Your task to perform on an android device: toggle airplane mode Image 0: 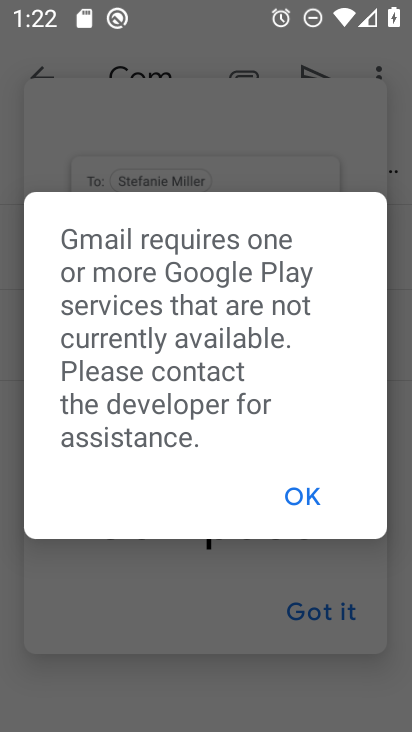
Step 0: press home button
Your task to perform on an android device: toggle airplane mode Image 1: 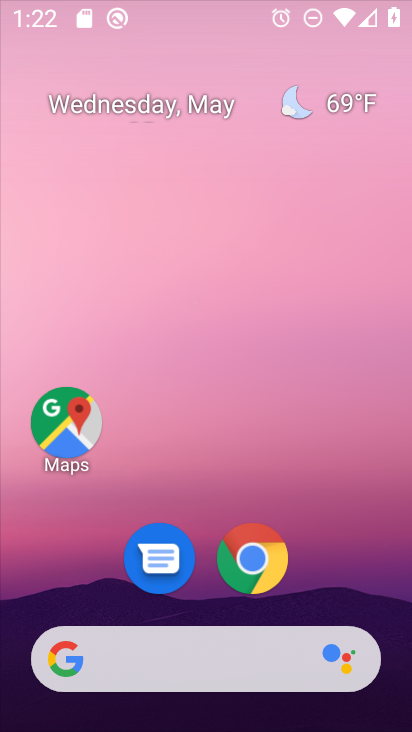
Step 1: drag from (398, 623) to (305, 77)
Your task to perform on an android device: toggle airplane mode Image 2: 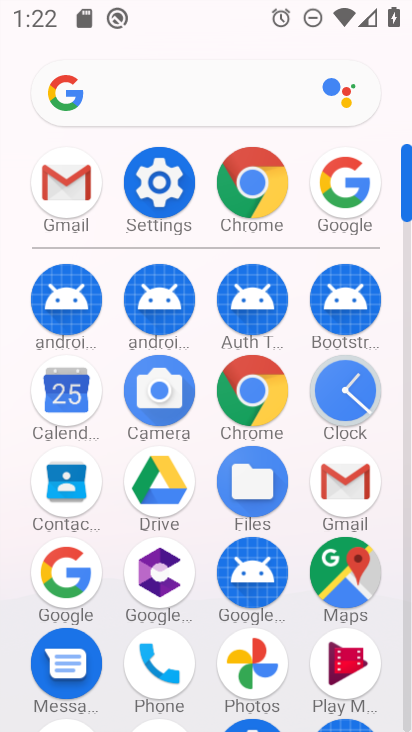
Step 2: drag from (210, 1) to (284, 522)
Your task to perform on an android device: toggle airplane mode Image 3: 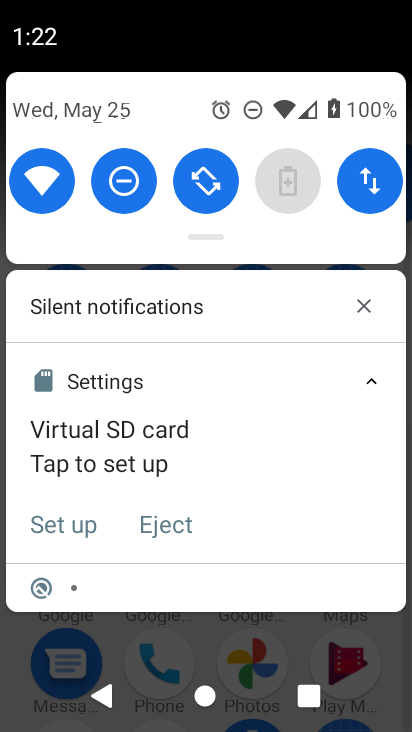
Step 3: drag from (236, 224) to (290, 577)
Your task to perform on an android device: toggle airplane mode Image 4: 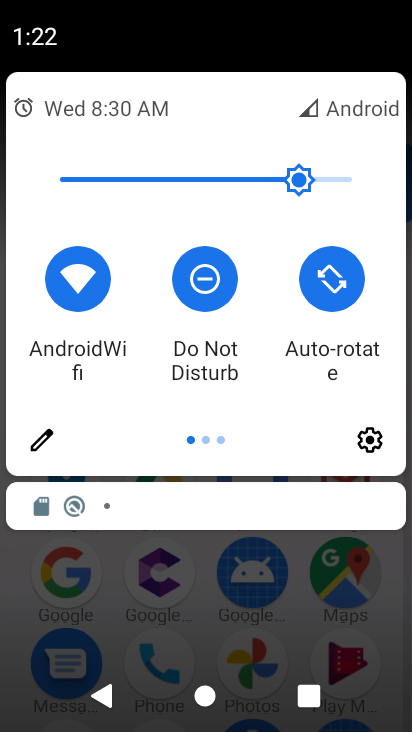
Step 4: drag from (347, 386) to (93, 339)
Your task to perform on an android device: toggle airplane mode Image 5: 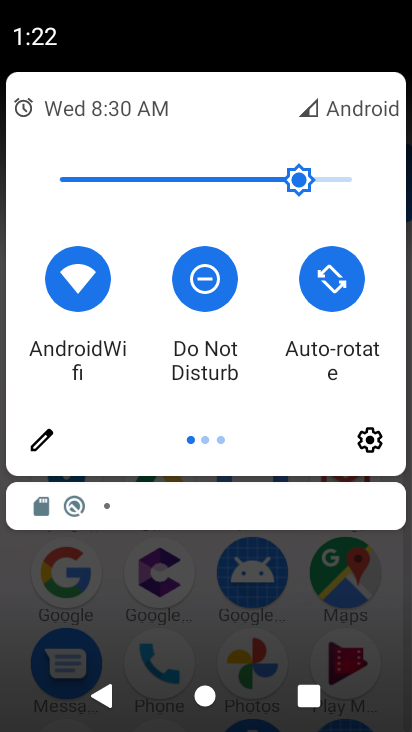
Step 5: drag from (323, 303) to (80, 314)
Your task to perform on an android device: toggle airplane mode Image 6: 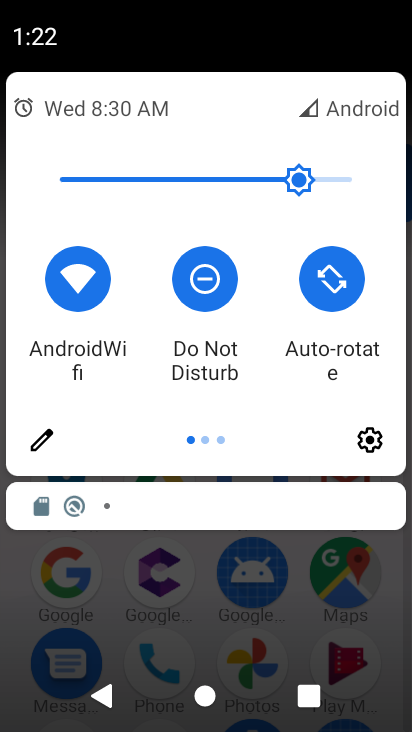
Step 6: drag from (395, 322) to (2, 298)
Your task to perform on an android device: toggle airplane mode Image 7: 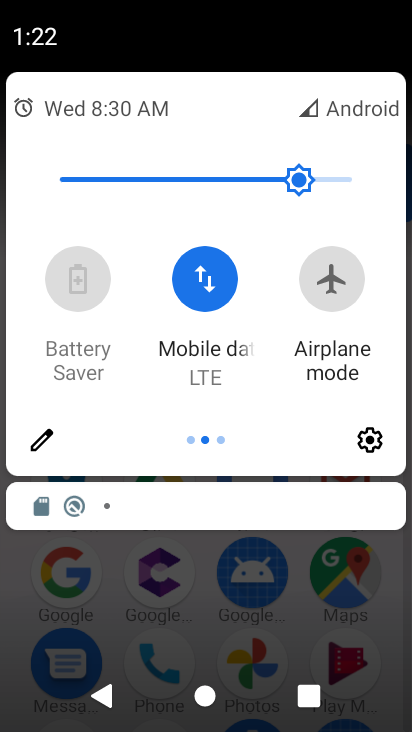
Step 7: click (342, 289)
Your task to perform on an android device: toggle airplane mode Image 8: 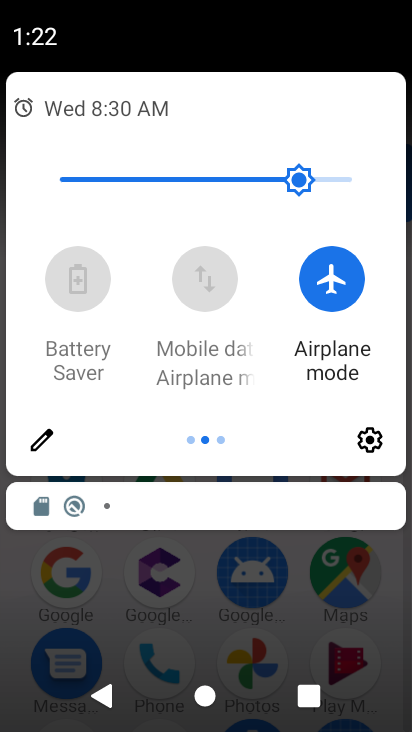
Step 8: task complete